Your task to perform on an android device: Set the phone to "Do not disturb". Image 0: 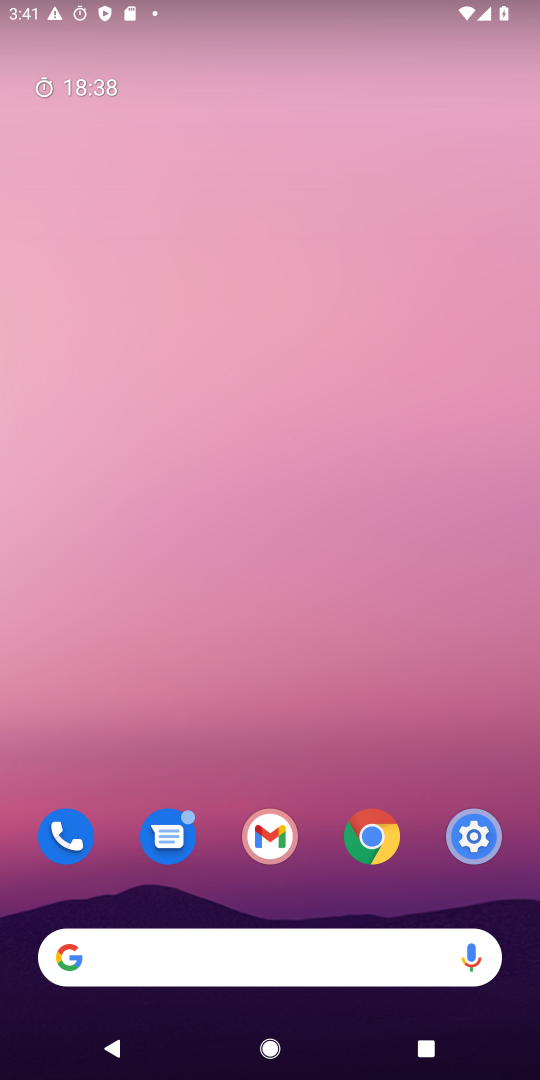
Step 0: drag from (200, 859) to (251, 13)
Your task to perform on an android device: Set the phone to "Do not disturb". Image 1: 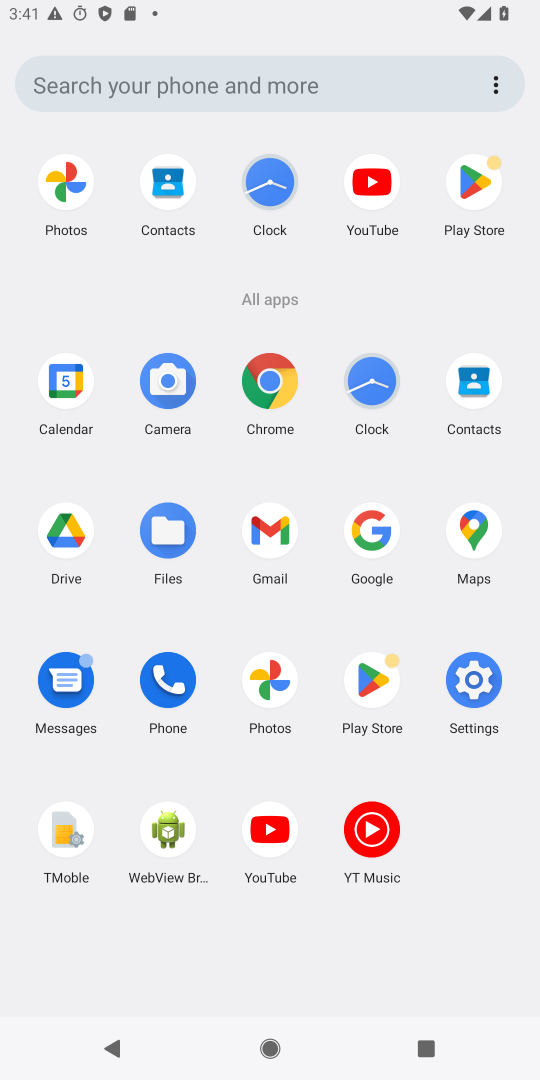
Step 1: click (482, 705)
Your task to perform on an android device: Set the phone to "Do not disturb". Image 2: 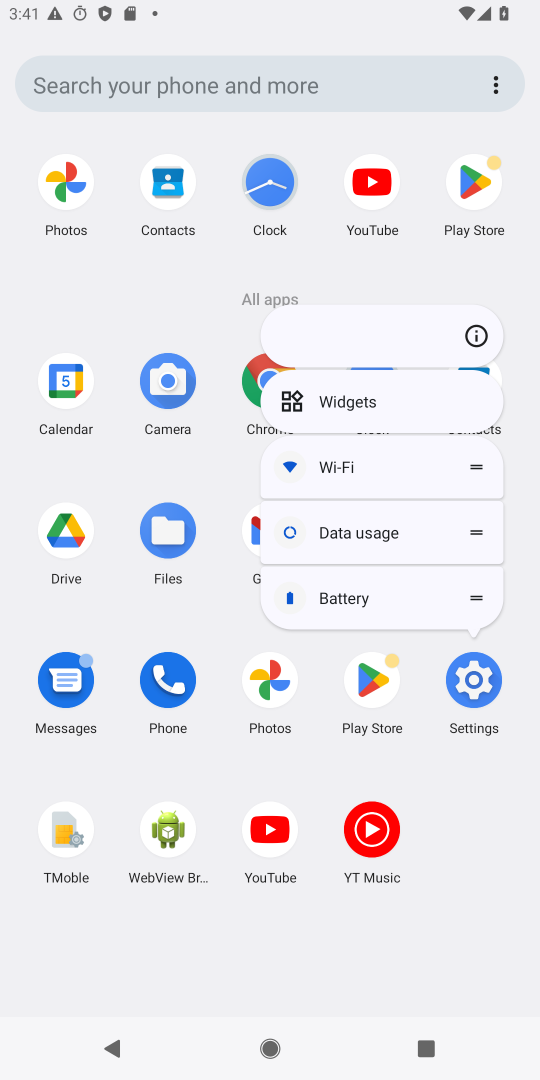
Step 2: click (482, 705)
Your task to perform on an android device: Set the phone to "Do not disturb". Image 3: 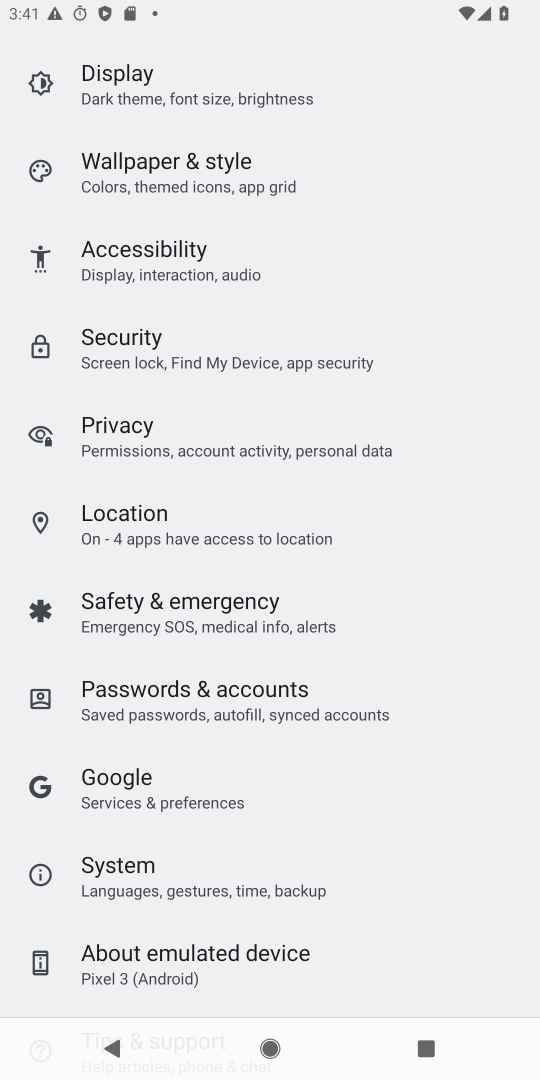
Step 3: drag from (217, 429) to (150, 845)
Your task to perform on an android device: Set the phone to "Do not disturb". Image 4: 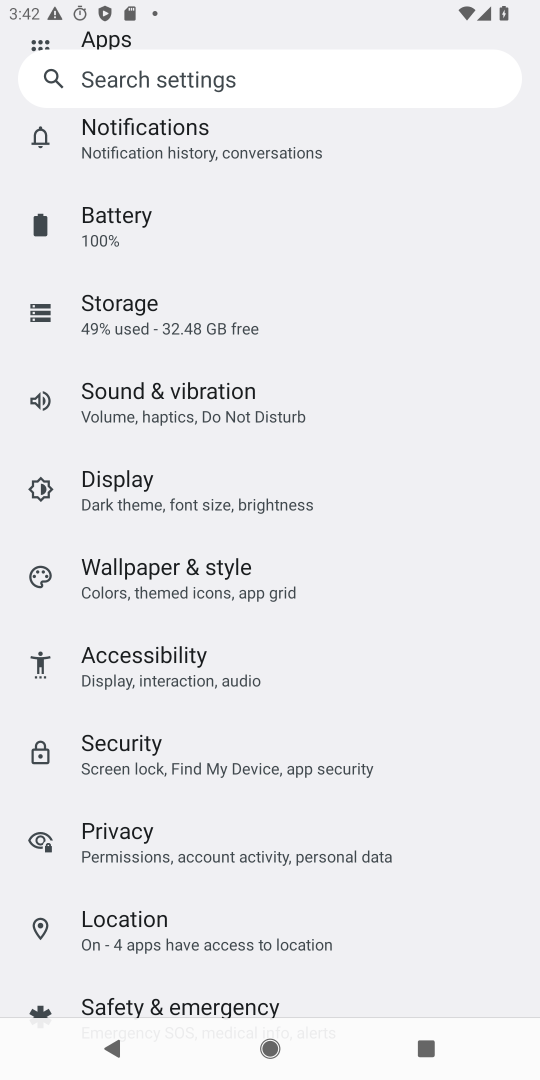
Step 4: click (170, 392)
Your task to perform on an android device: Set the phone to "Do not disturb". Image 5: 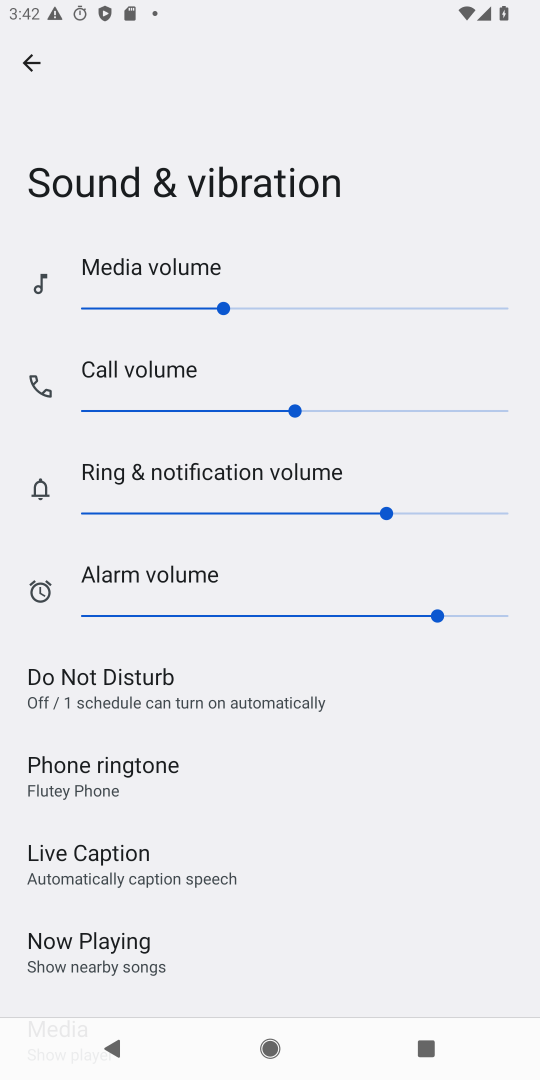
Step 5: click (129, 694)
Your task to perform on an android device: Set the phone to "Do not disturb". Image 6: 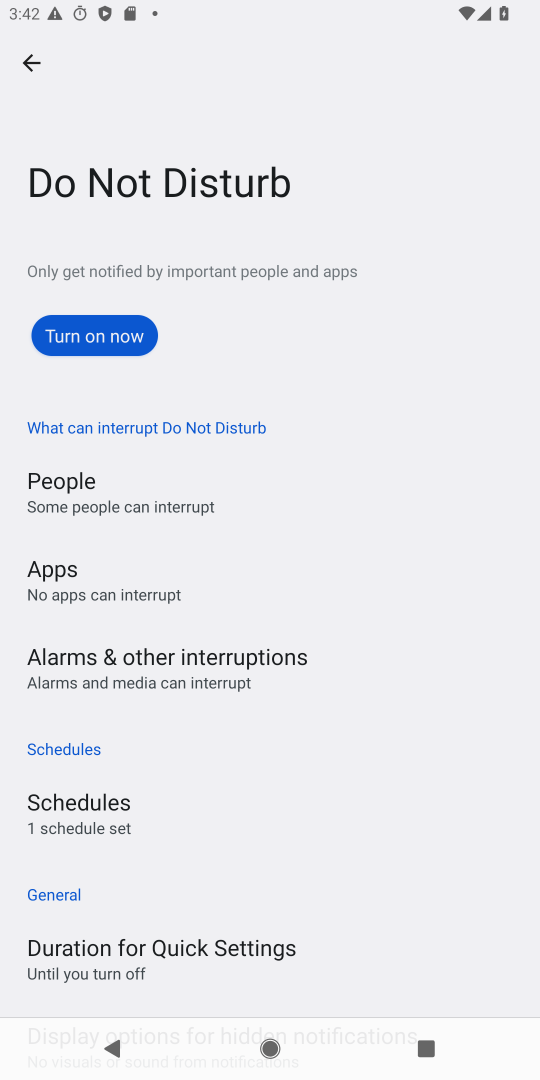
Step 6: click (106, 349)
Your task to perform on an android device: Set the phone to "Do not disturb". Image 7: 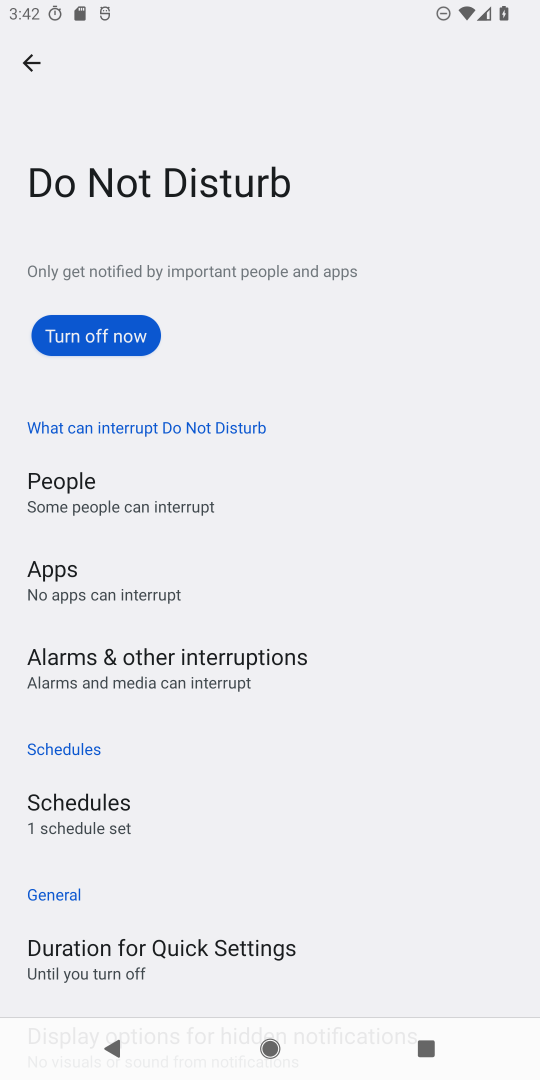
Step 7: task complete